Your task to perform on an android device: Go to Google maps Image 0: 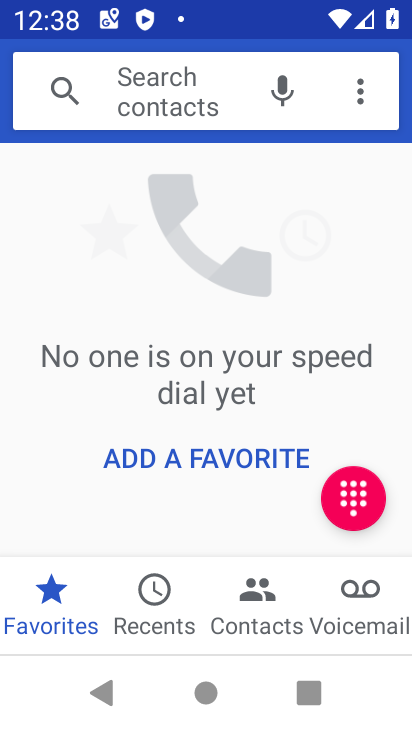
Step 0: press home button
Your task to perform on an android device: Go to Google maps Image 1: 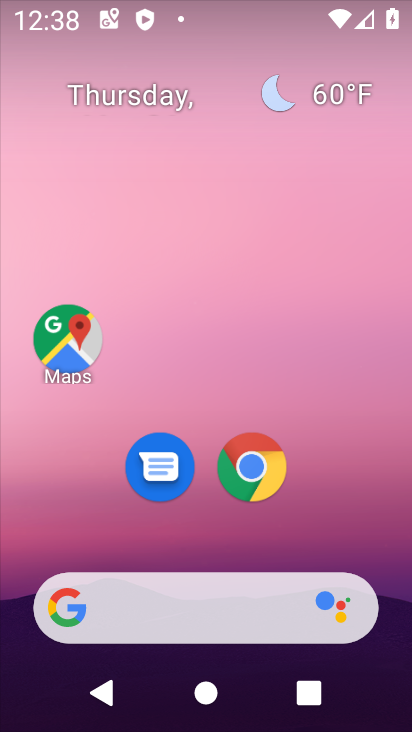
Step 1: click (81, 352)
Your task to perform on an android device: Go to Google maps Image 2: 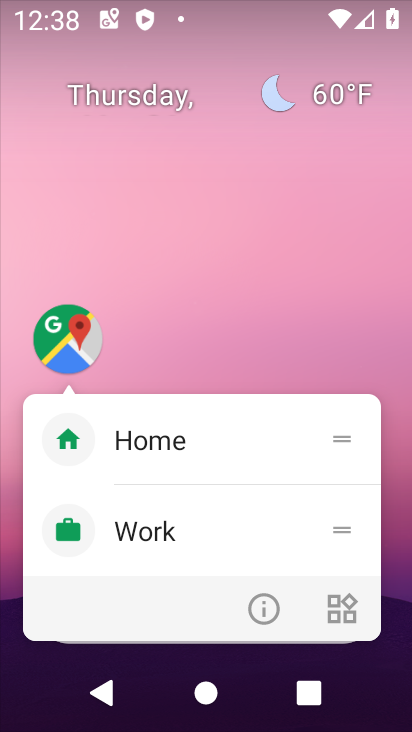
Step 2: click (73, 314)
Your task to perform on an android device: Go to Google maps Image 3: 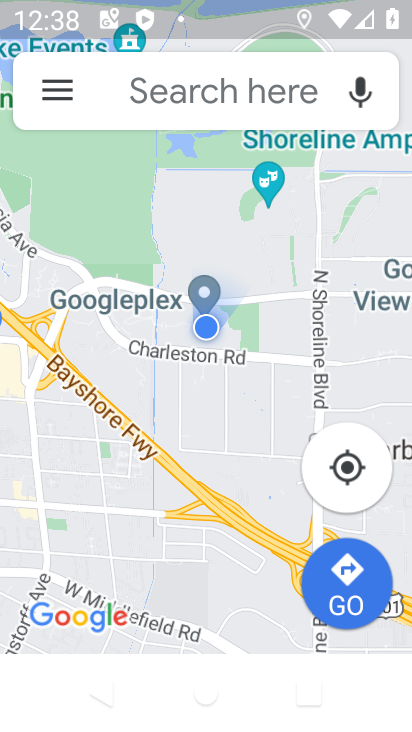
Step 3: task complete